Your task to perform on an android device: Go to Android settings Image 0: 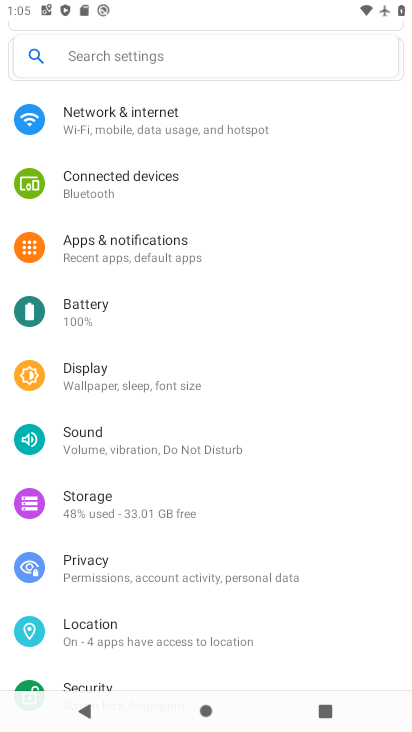
Step 0: drag from (204, 537) to (252, 89)
Your task to perform on an android device: Go to Android settings Image 1: 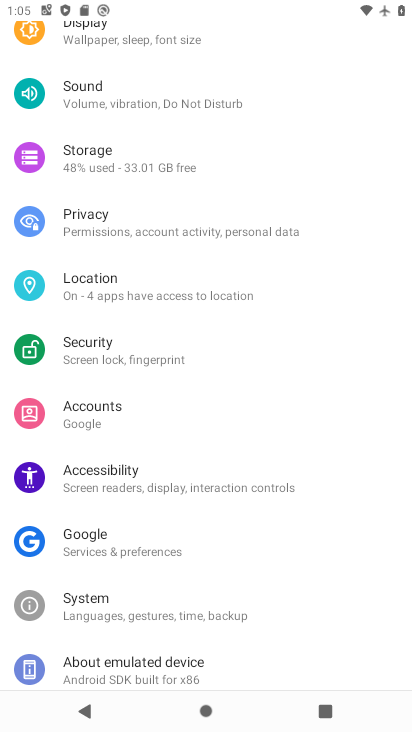
Step 1: click (144, 662)
Your task to perform on an android device: Go to Android settings Image 2: 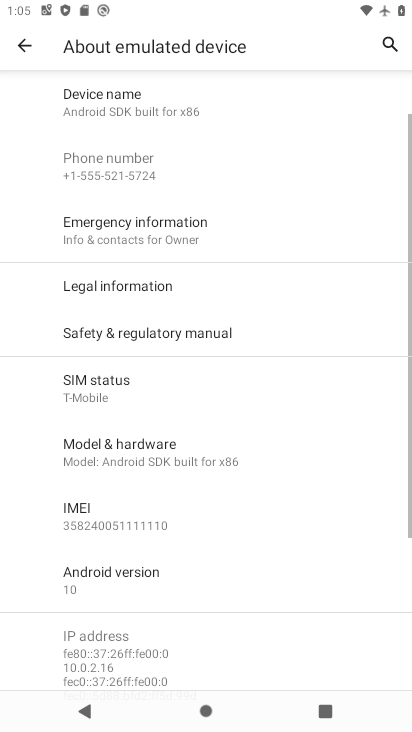
Step 2: click (149, 582)
Your task to perform on an android device: Go to Android settings Image 3: 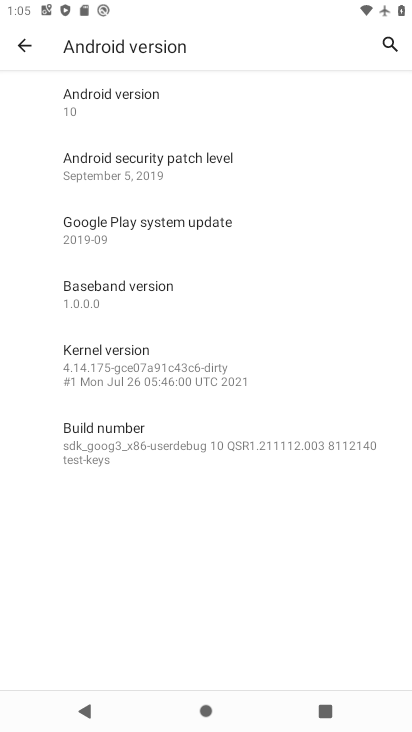
Step 3: task complete